Your task to perform on an android device: Play the last video I watched on Youtube Image 0: 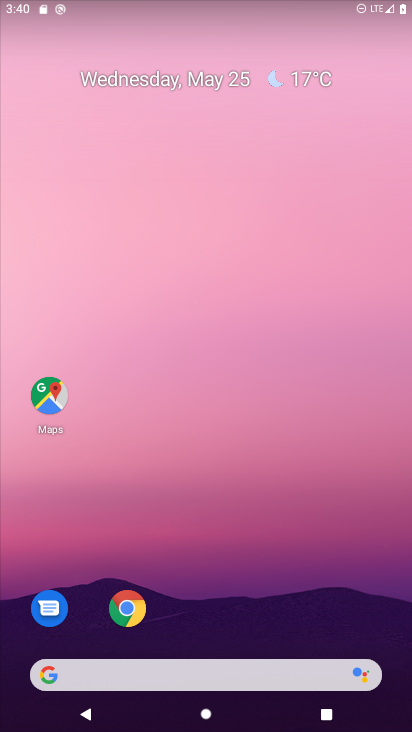
Step 0: drag from (388, 632) to (243, 47)
Your task to perform on an android device: Play the last video I watched on Youtube Image 1: 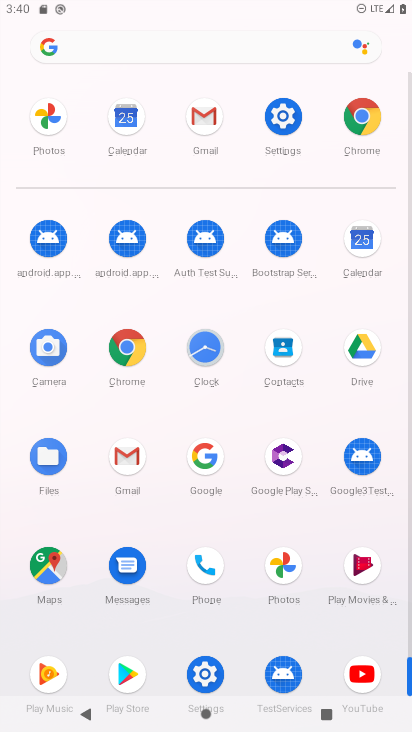
Step 1: click (359, 675)
Your task to perform on an android device: Play the last video I watched on Youtube Image 2: 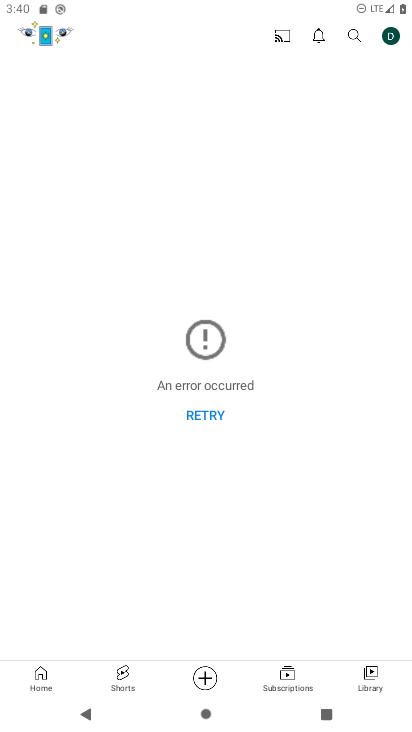
Step 2: click (367, 677)
Your task to perform on an android device: Play the last video I watched on Youtube Image 3: 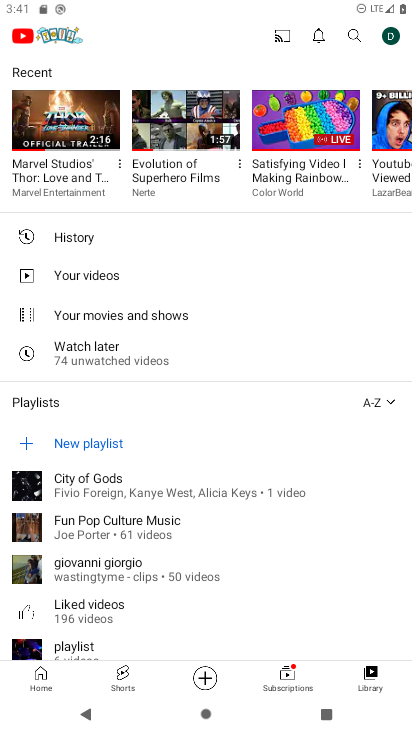
Step 3: click (76, 137)
Your task to perform on an android device: Play the last video I watched on Youtube Image 4: 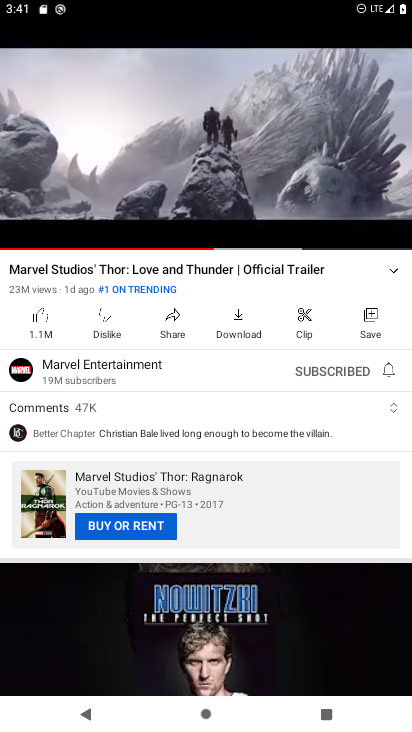
Step 4: click (205, 124)
Your task to perform on an android device: Play the last video I watched on Youtube Image 5: 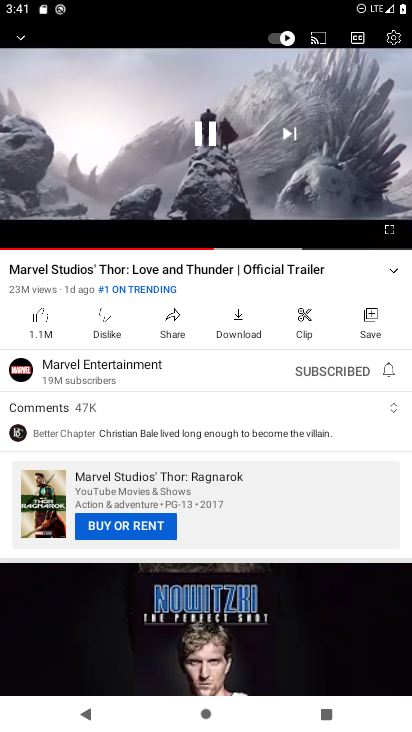
Step 5: click (205, 124)
Your task to perform on an android device: Play the last video I watched on Youtube Image 6: 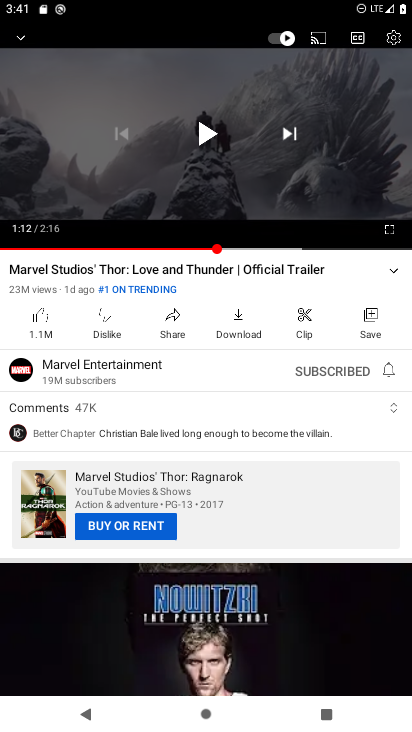
Step 6: task complete